Your task to perform on an android device: Is it going to rain tomorrow? Image 0: 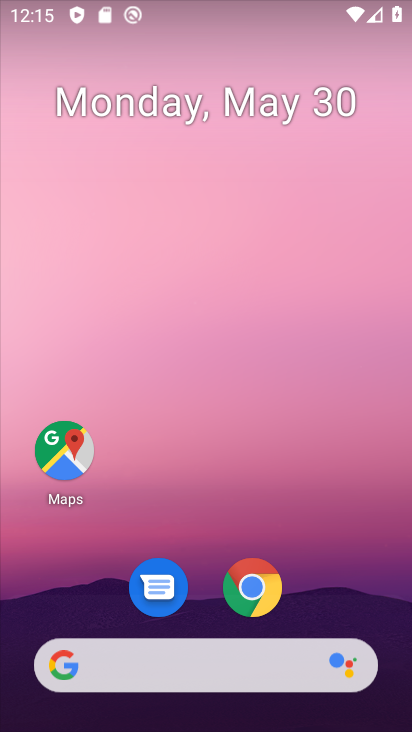
Step 0: drag from (346, 534) to (345, 71)
Your task to perform on an android device: Is it going to rain tomorrow? Image 1: 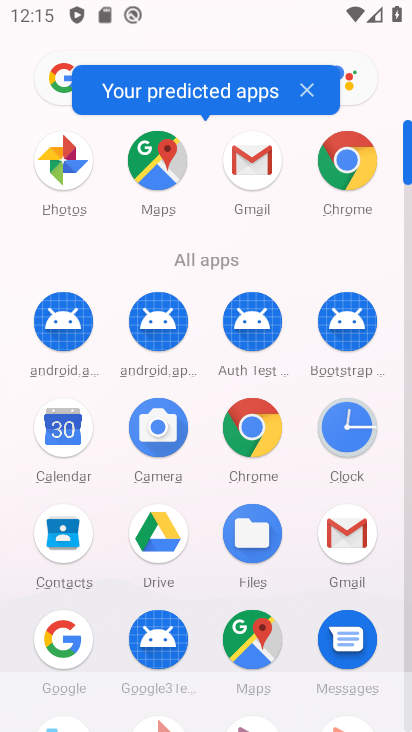
Step 1: click (61, 634)
Your task to perform on an android device: Is it going to rain tomorrow? Image 2: 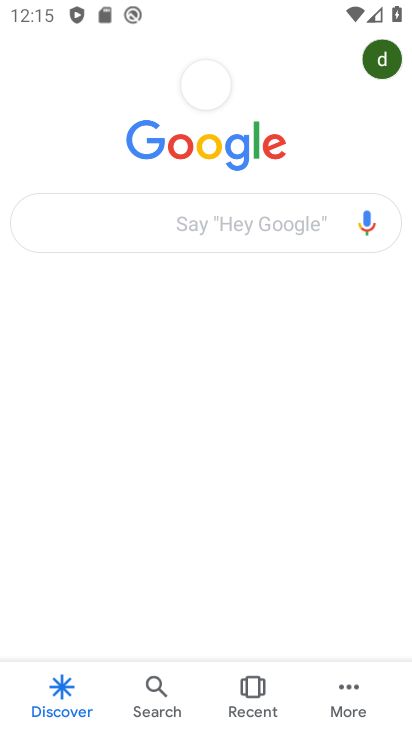
Step 2: click (202, 218)
Your task to perform on an android device: Is it going to rain tomorrow? Image 3: 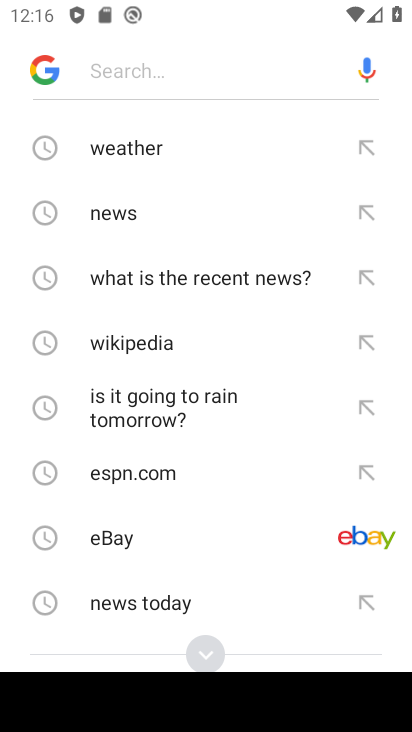
Step 3: type "is it going to rain tomorrow"
Your task to perform on an android device: Is it going to rain tomorrow? Image 4: 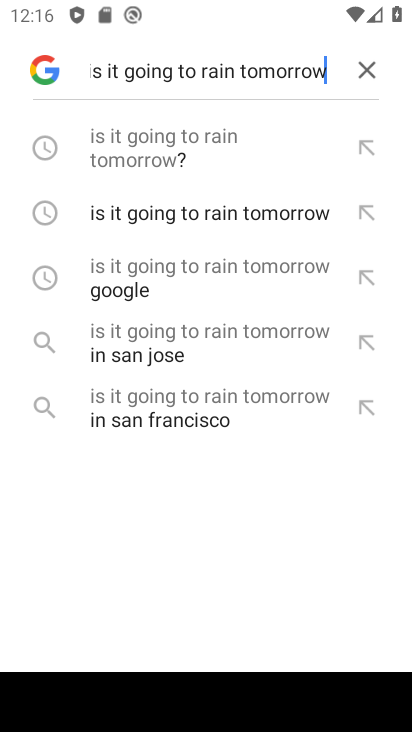
Step 4: click (137, 151)
Your task to perform on an android device: Is it going to rain tomorrow? Image 5: 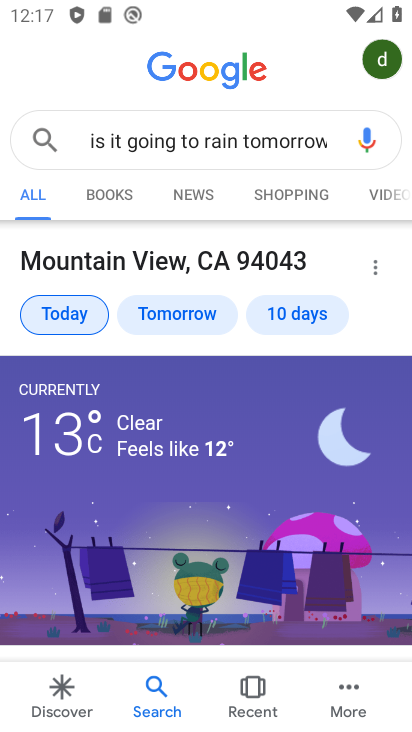
Step 5: task complete